Your task to perform on an android device: Search for the new Air Jordan 13 on Nike.com Image 0: 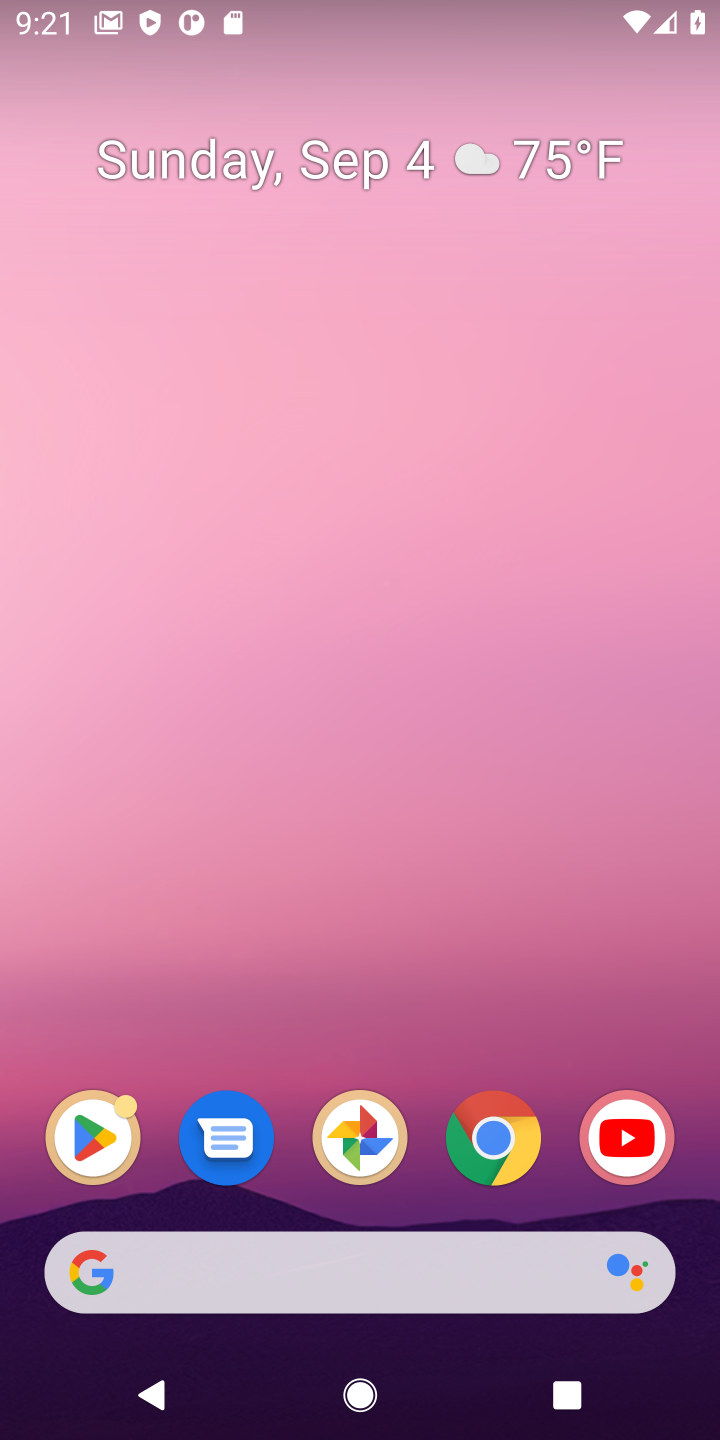
Step 0: click (474, 1104)
Your task to perform on an android device: Search for the new Air Jordan 13 on Nike.com Image 1: 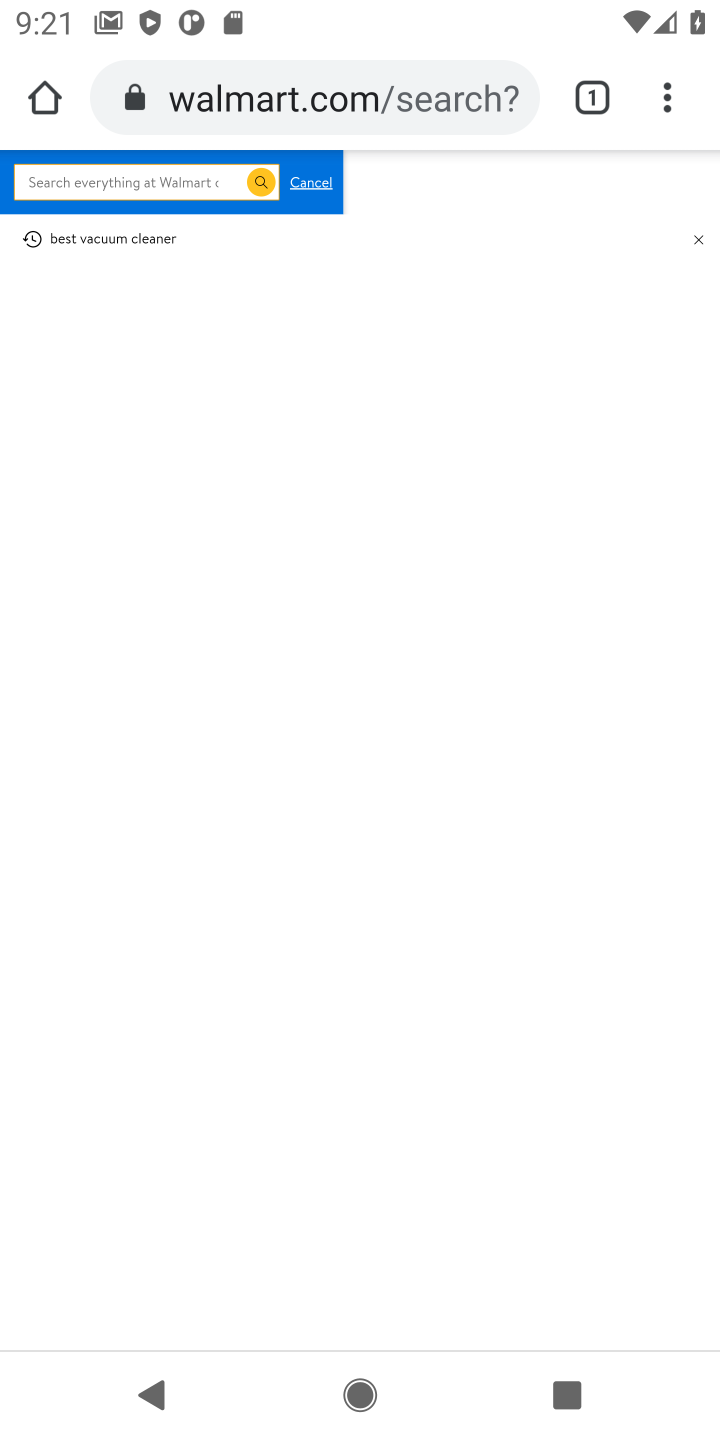
Step 1: click (392, 111)
Your task to perform on an android device: Search for the new Air Jordan 13 on Nike.com Image 2: 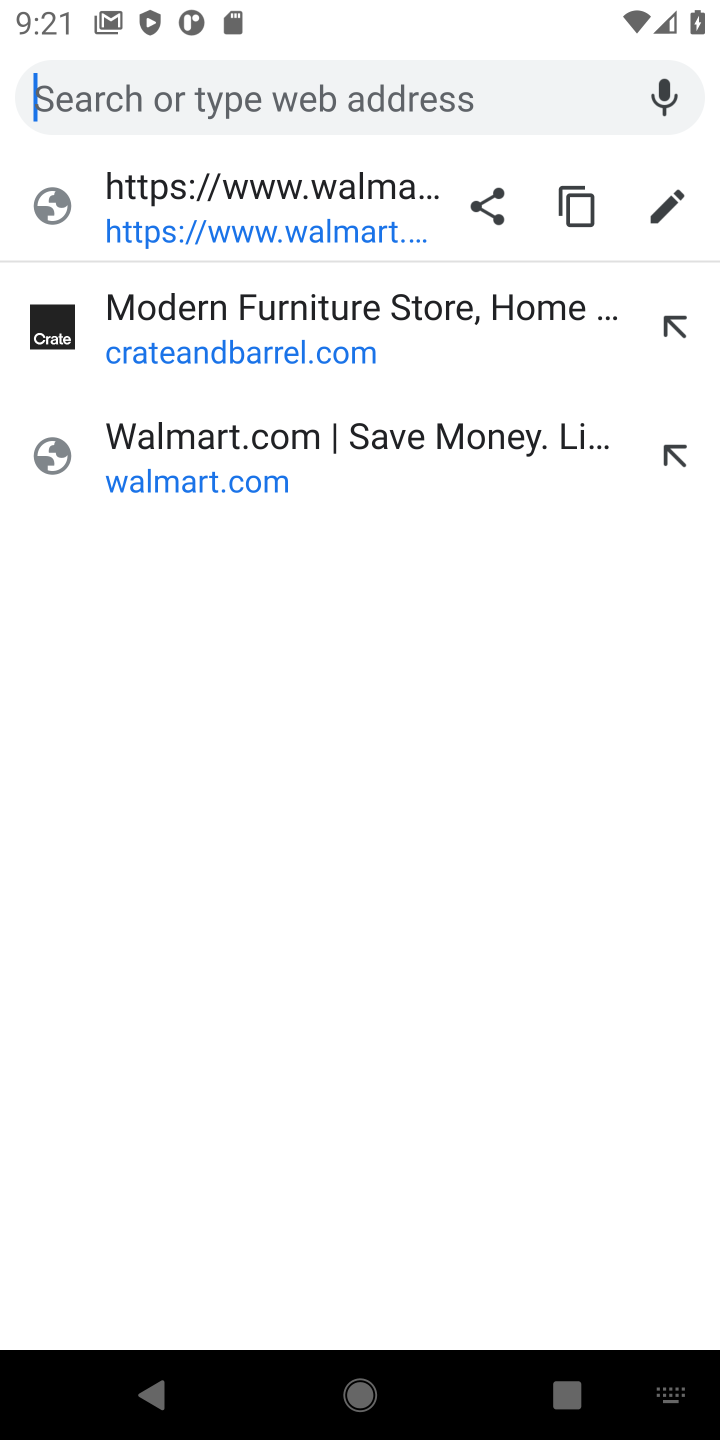
Step 2: type "nike.com"
Your task to perform on an android device: Search for the new Air Jordan 13 on Nike.com Image 3: 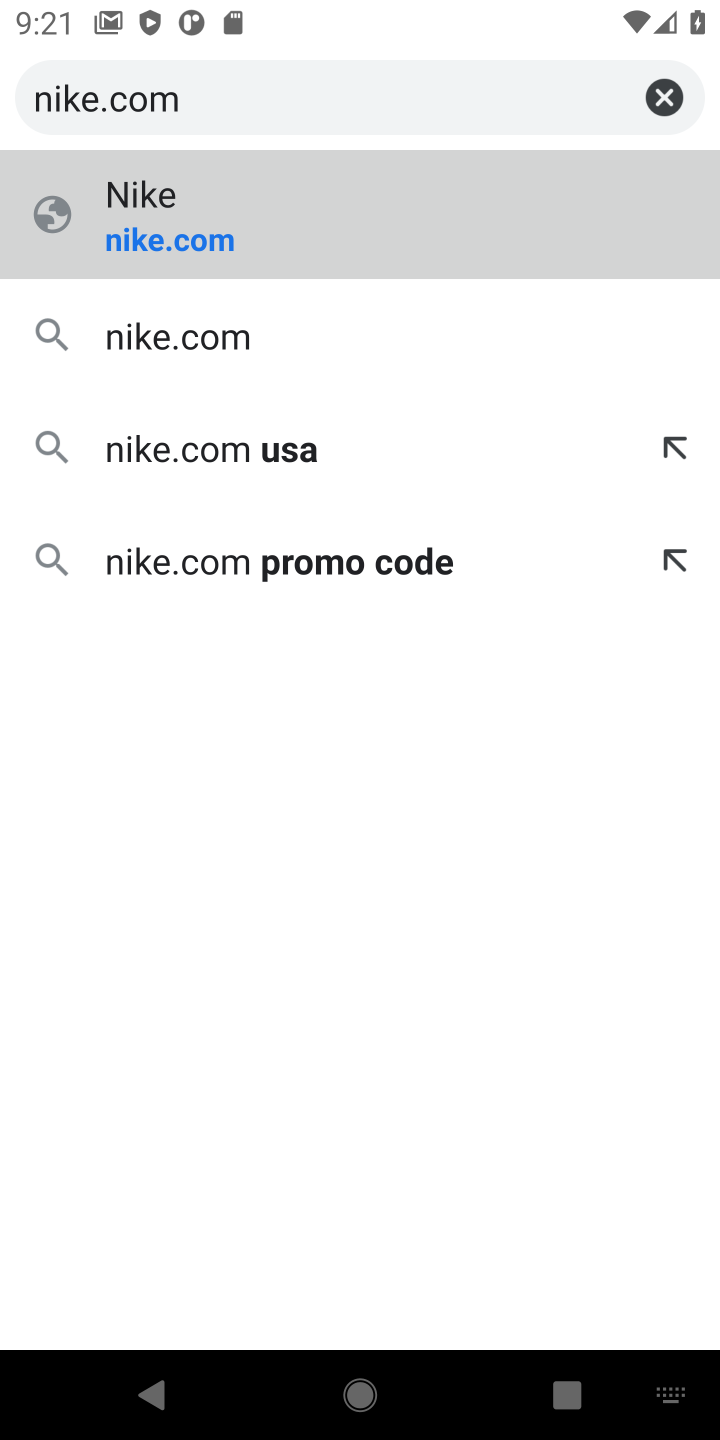
Step 3: click (246, 201)
Your task to perform on an android device: Search for the new Air Jordan 13 on Nike.com Image 4: 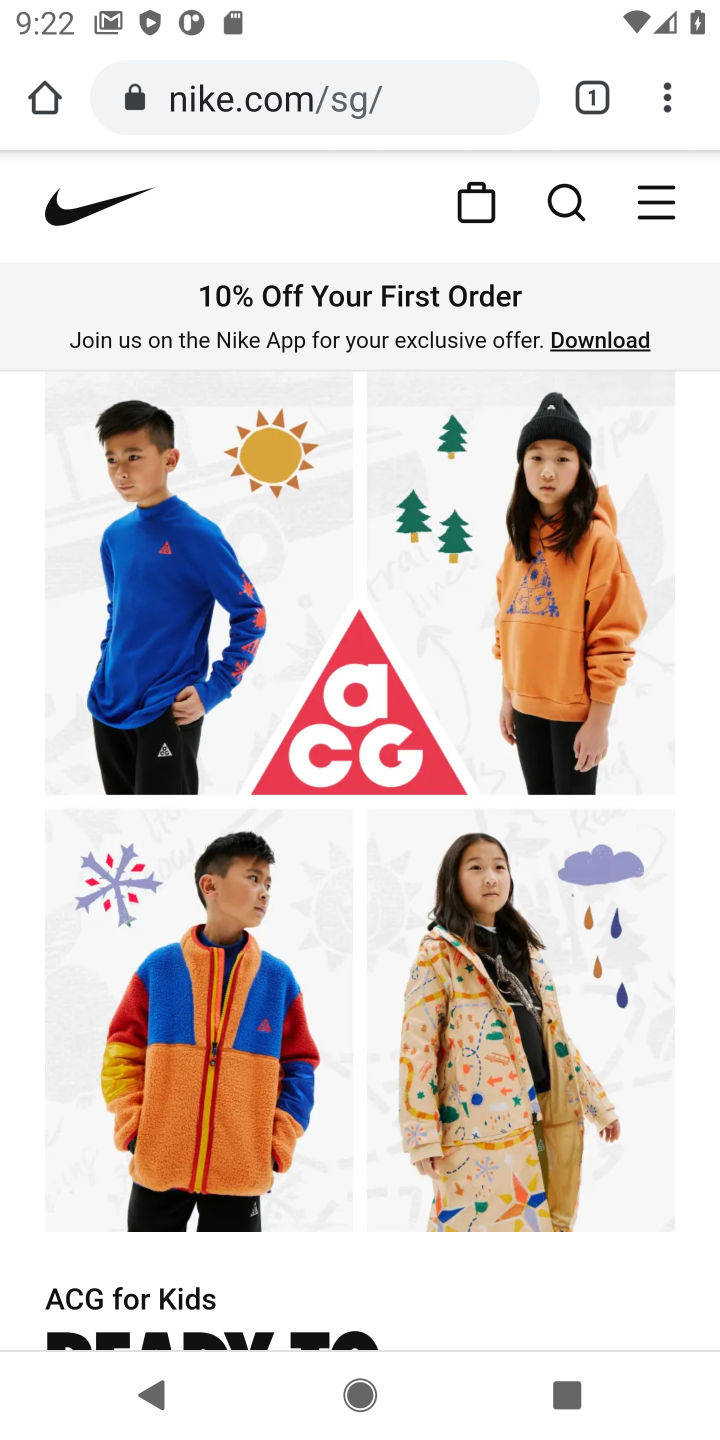
Step 4: click (568, 191)
Your task to perform on an android device: Search for the new Air Jordan 13 on Nike.com Image 5: 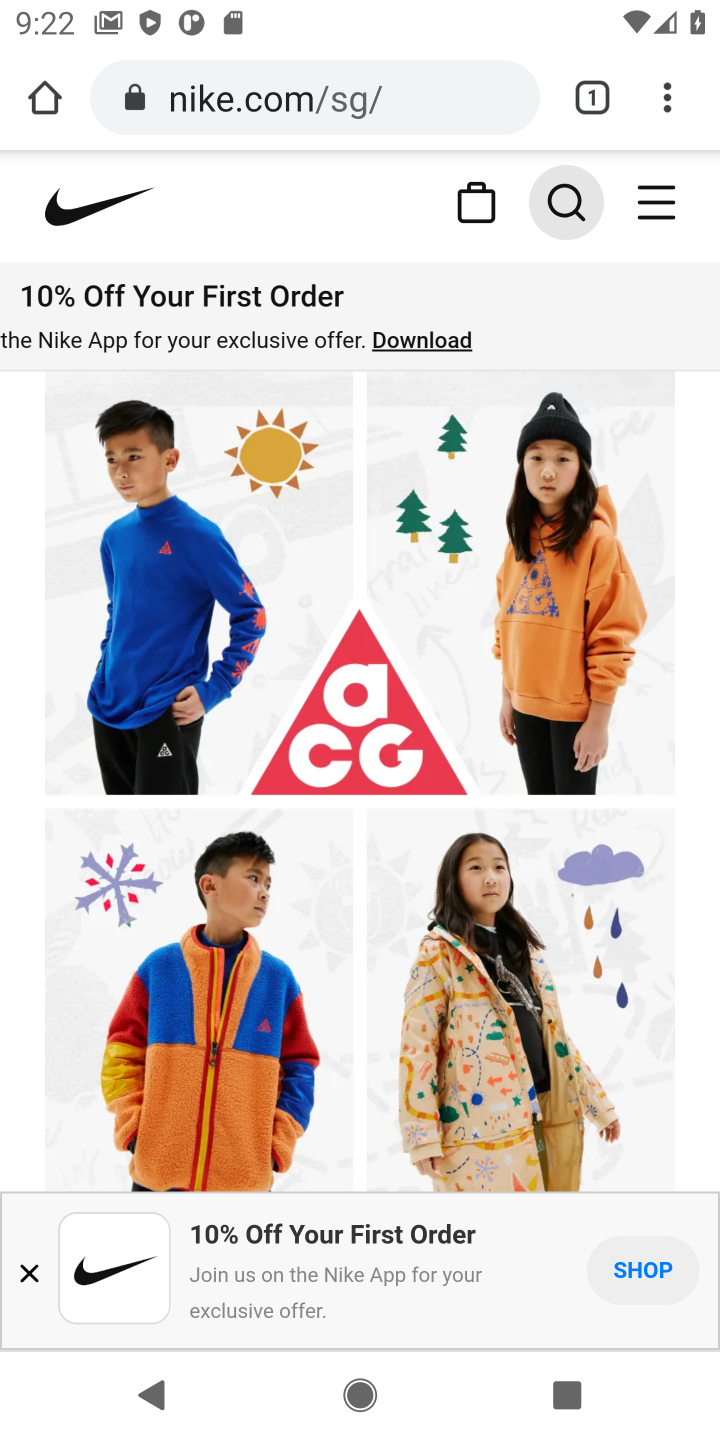
Step 5: click (563, 221)
Your task to perform on an android device: Search for the new Air Jordan 13 on Nike.com Image 6: 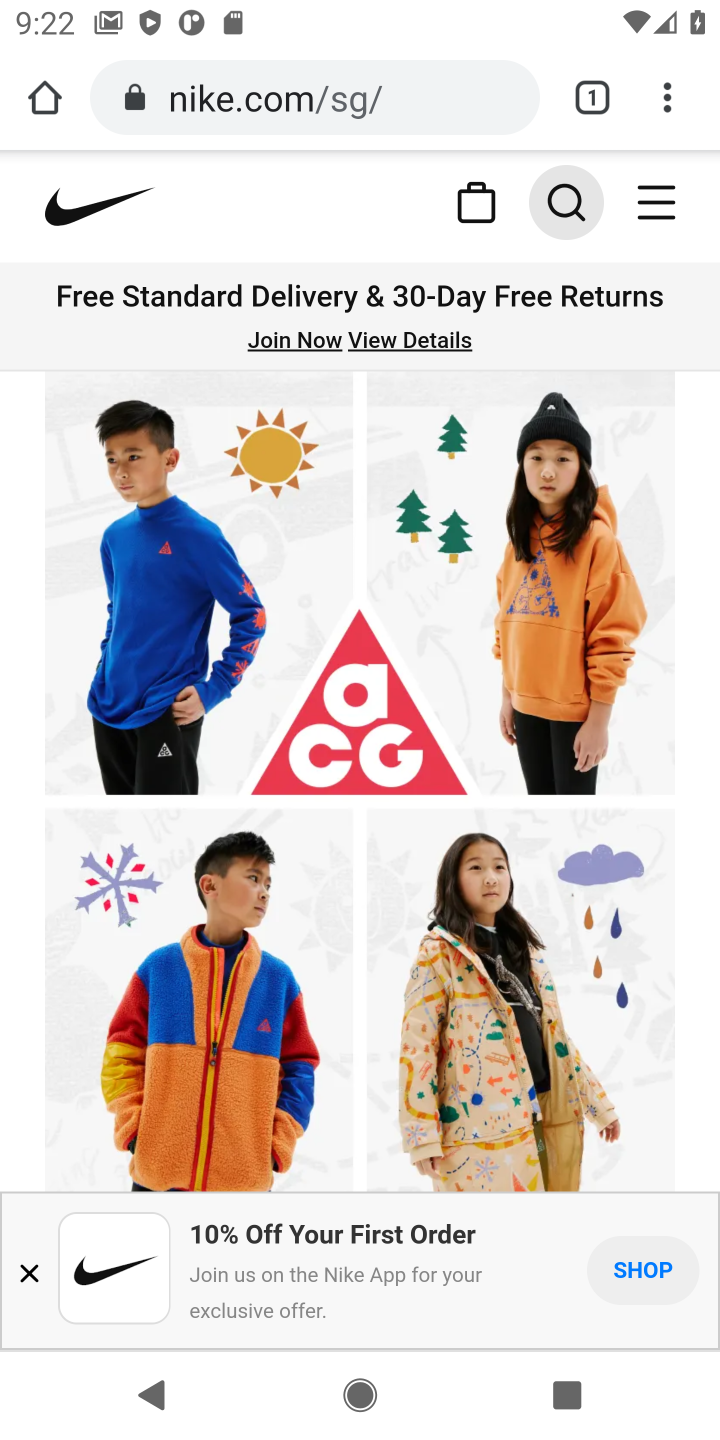
Step 6: click (594, 230)
Your task to perform on an android device: Search for the new Air Jordan 13 on Nike.com Image 7: 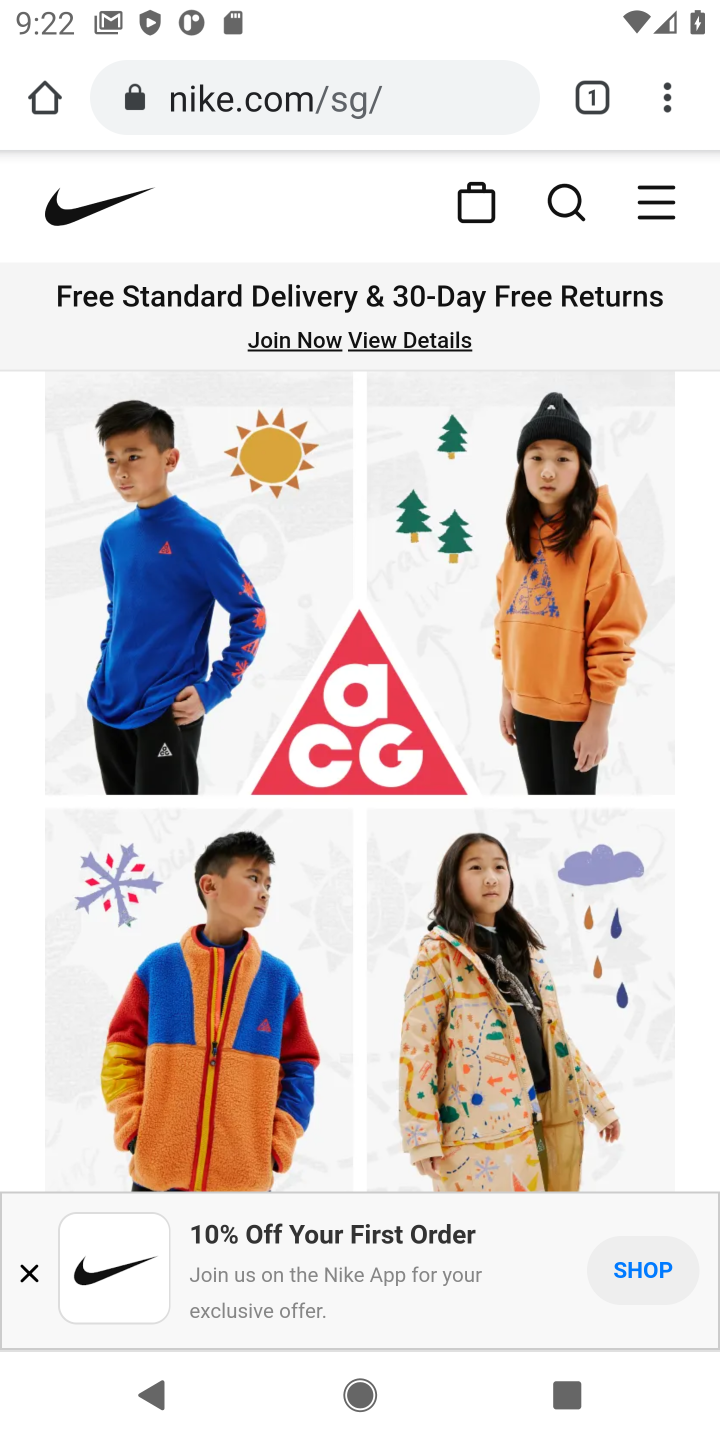
Step 7: click (551, 203)
Your task to perform on an android device: Search for the new Air Jordan 13 on Nike.com Image 8: 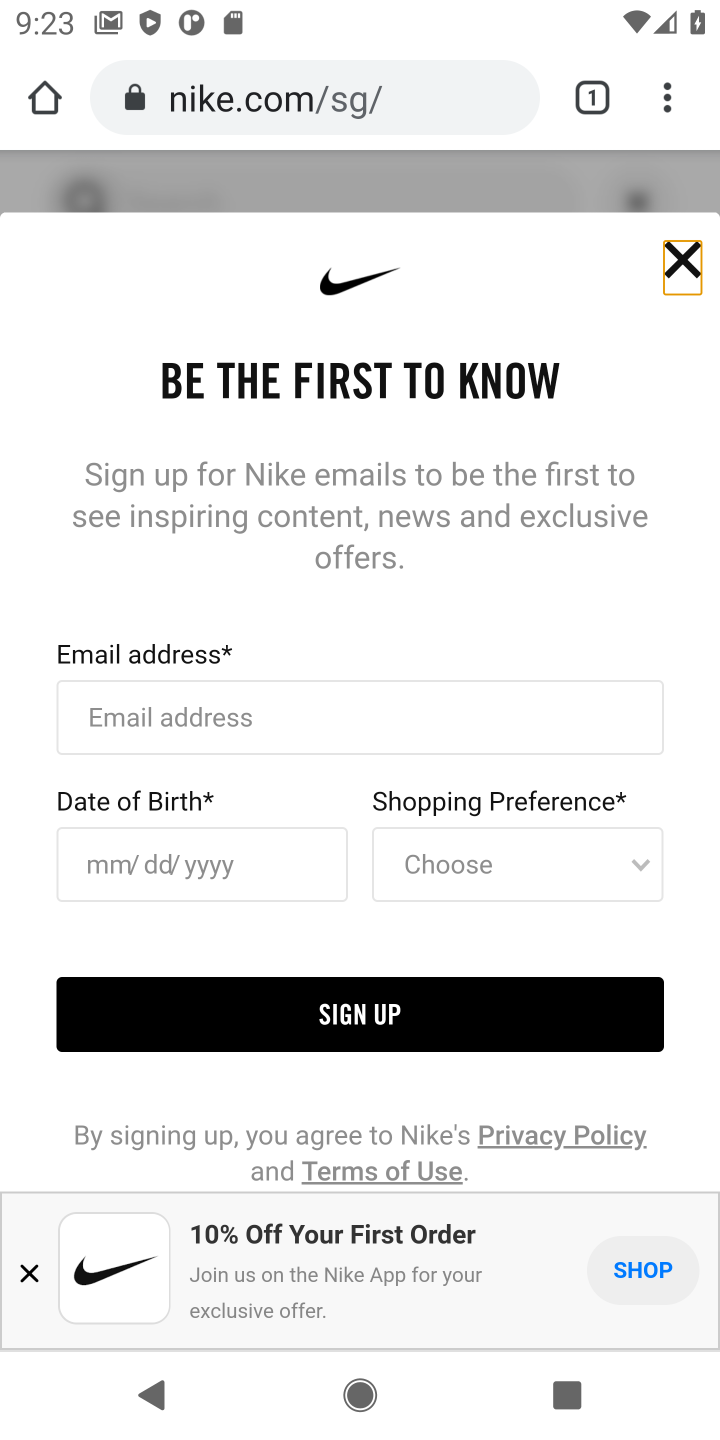
Step 8: type "air jordan 13"
Your task to perform on an android device: Search for the new Air Jordan 13 on Nike.com Image 9: 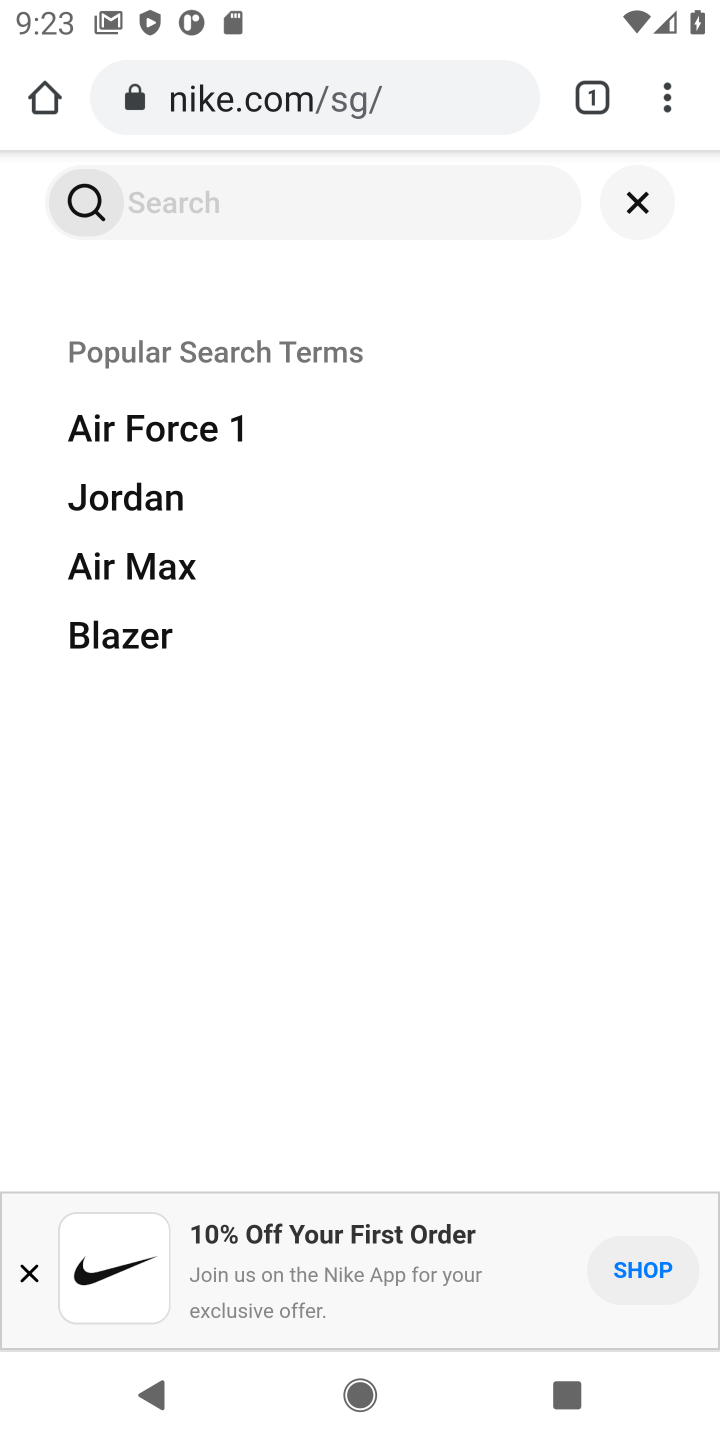
Step 9: click (362, 209)
Your task to perform on an android device: Search for the new Air Jordan 13 on Nike.com Image 10: 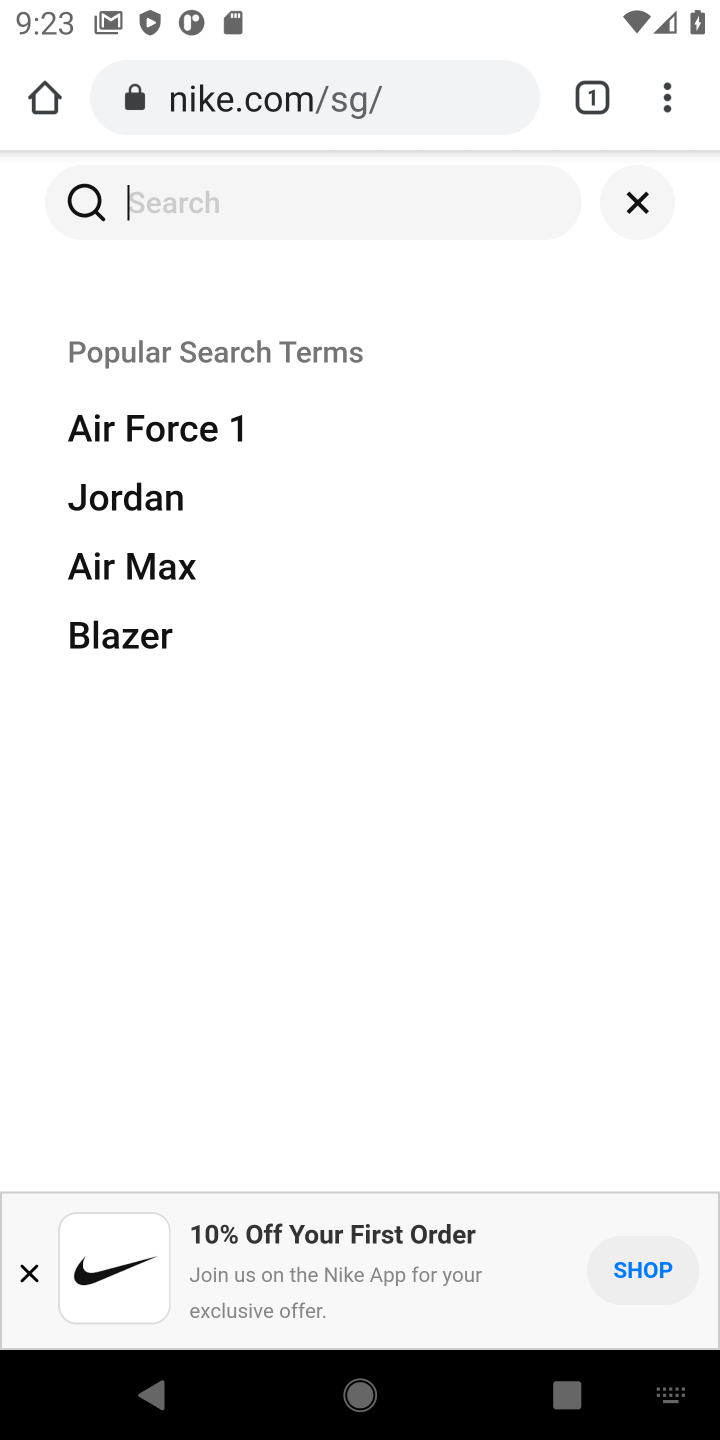
Step 10: type "air jordan 13"
Your task to perform on an android device: Search for the new Air Jordan 13 on Nike.com Image 11: 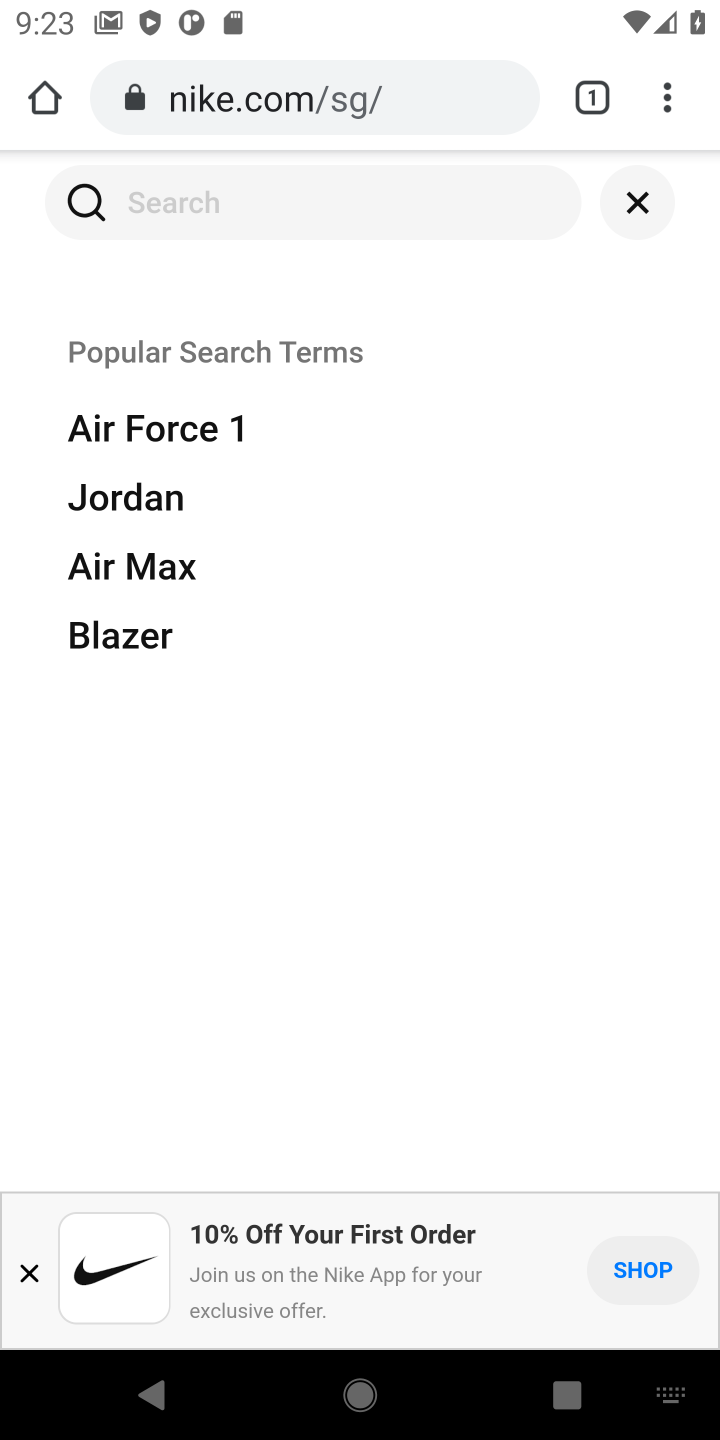
Step 11: click (342, 181)
Your task to perform on an android device: Search for the new Air Jordan 13 on Nike.com Image 12: 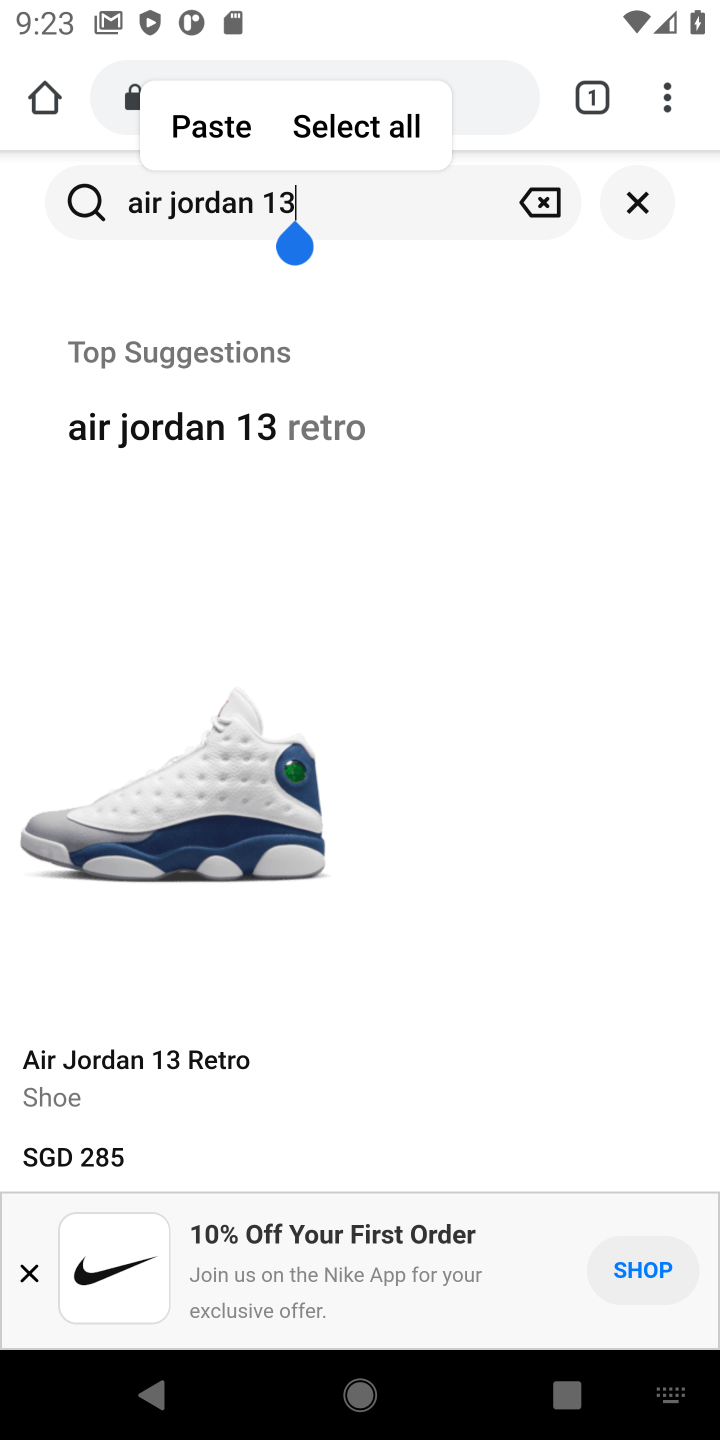
Step 12: task complete